Your task to perform on an android device: Open sound settings Image 0: 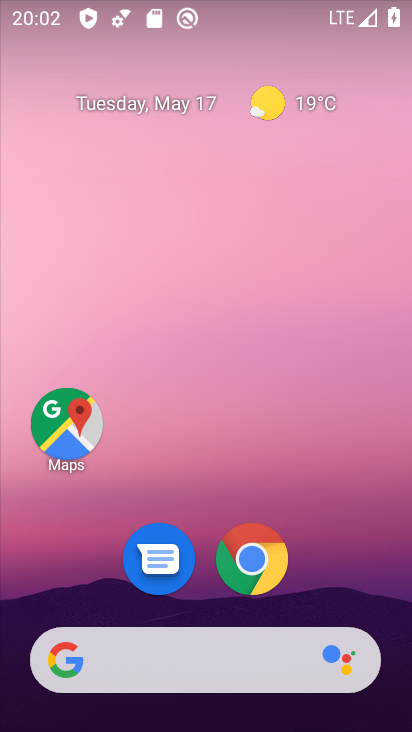
Step 0: click (288, 384)
Your task to perform on an android device: Open sound settings Image 1: 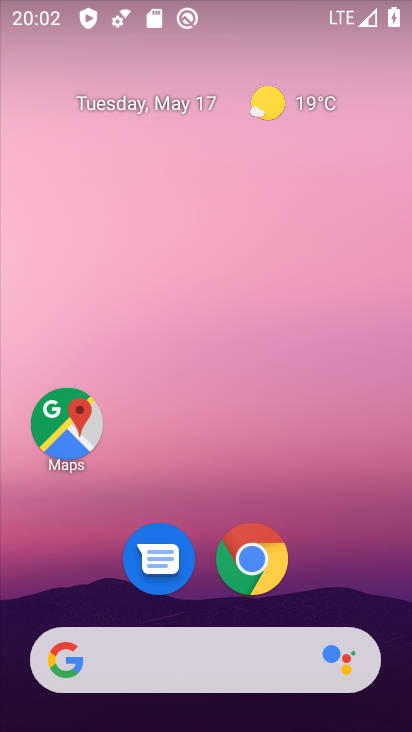
Step 1: drag from (205, 573) to (232, 221)
Your task to perform on an android device: Open sound settings Image 2: 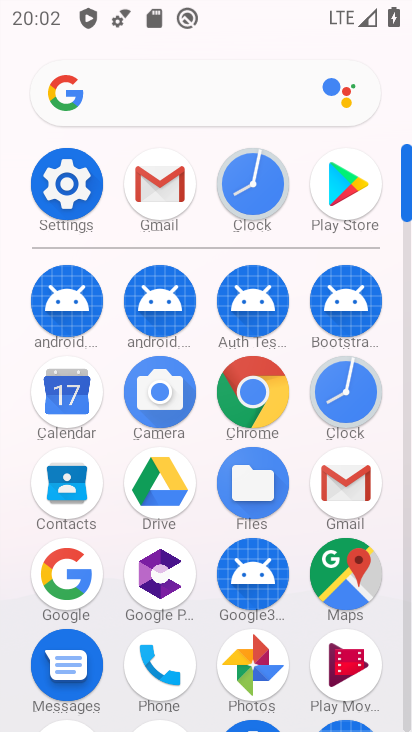
Step 2: click (58, 182)
Your task to perform on an android device: Open sound settings Image 3: 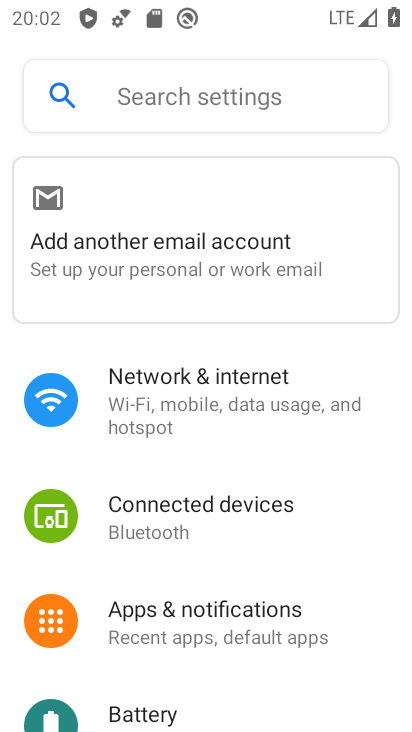
Step 3: drag from (245, 675) to (300, 193)
Your task to perform on an android device: Open sound settings Image 4: 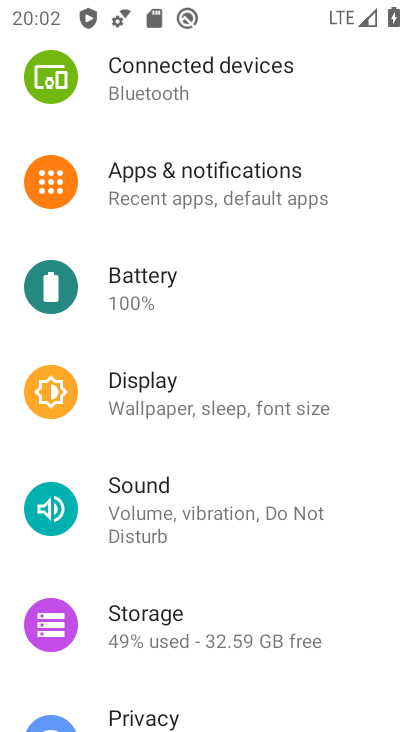
Step 4: click (165, 511)
Your task to perform on an android device: Open sound settings Image 5: 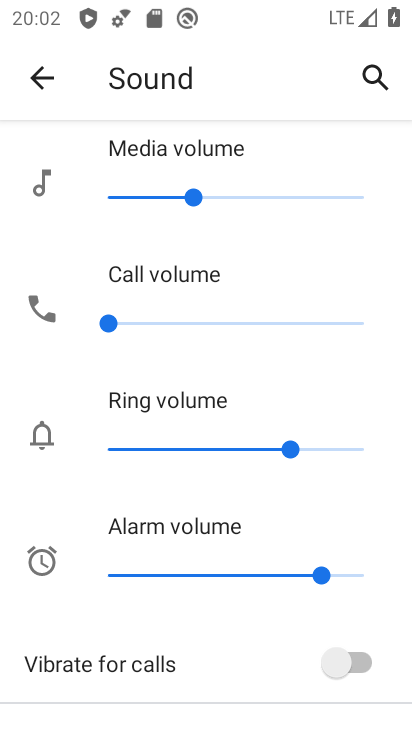
Step 5: task complete